Your task to perform on an android device: When is my next meeting? Image 0: 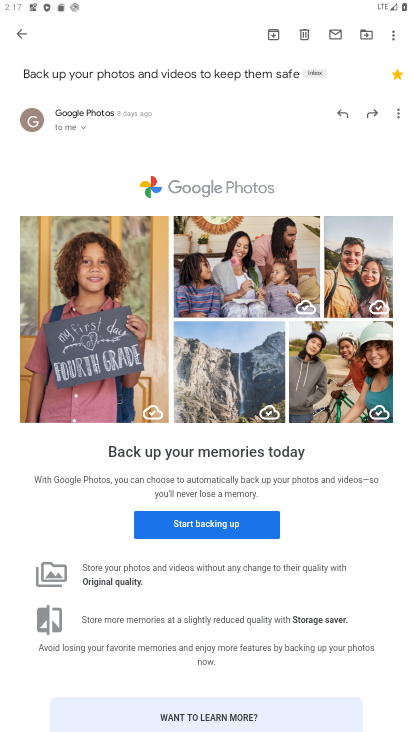
Step 0: press home button
Your task to perform on an android device: When is my next meeting? Image 1: 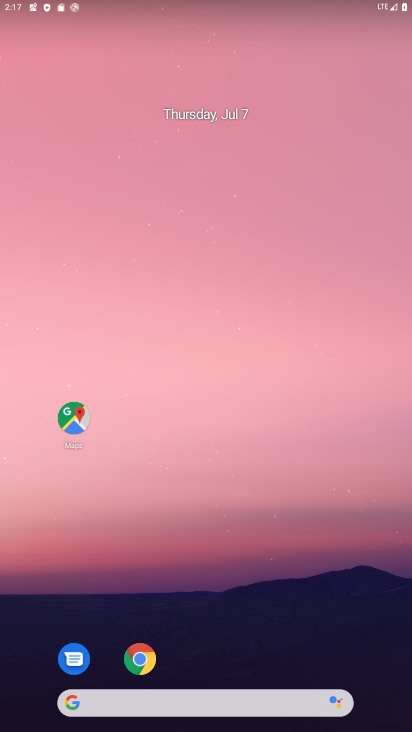
Step 1: drag from (247, 659) to (235, 120)
Your task to perform on an android device: When is my next meeting? Image 2: 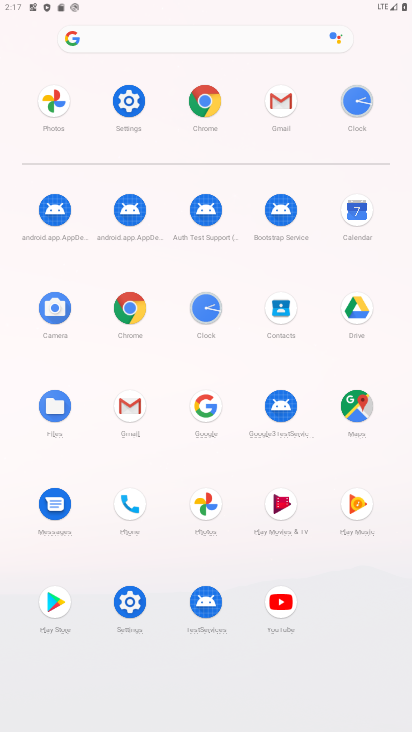
Step 2: click (355, 211)
Your task to perform on an android device: When is my next meeting? Image 3: 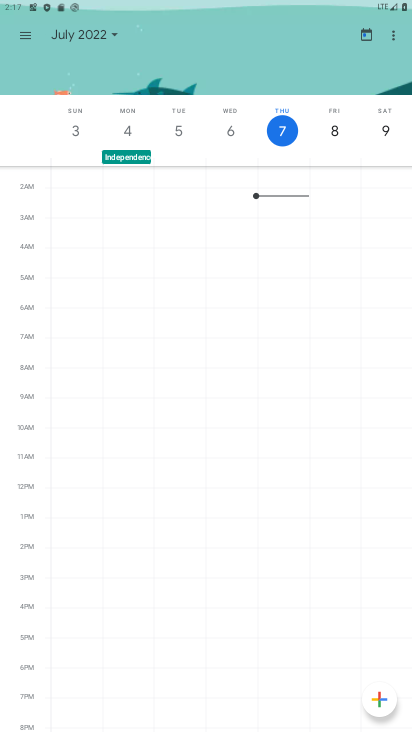
Step 3: click (365, 32)
Your task to perform on an android device: When is my next meeting? Image 4: 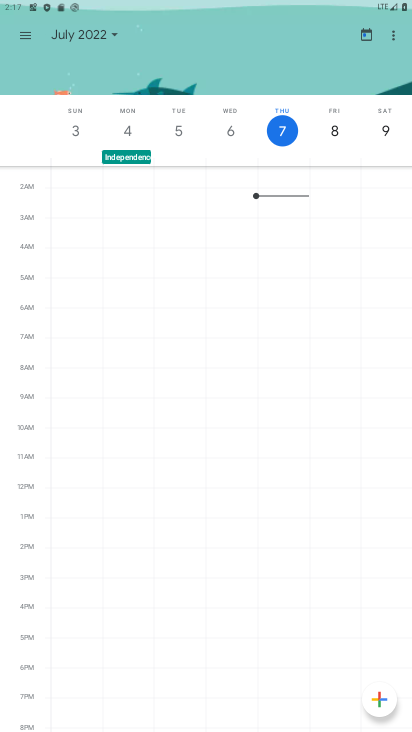
Step 4: click (115, 38)
Your task to perform on an android device: When is my next meeting? Image 5: 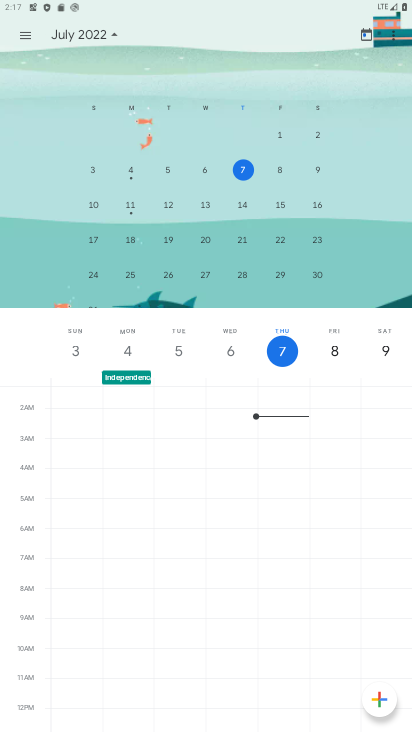
Step 5: click (133, 203)
Your task to perform on an android device: When is my next meeting? Image 6: 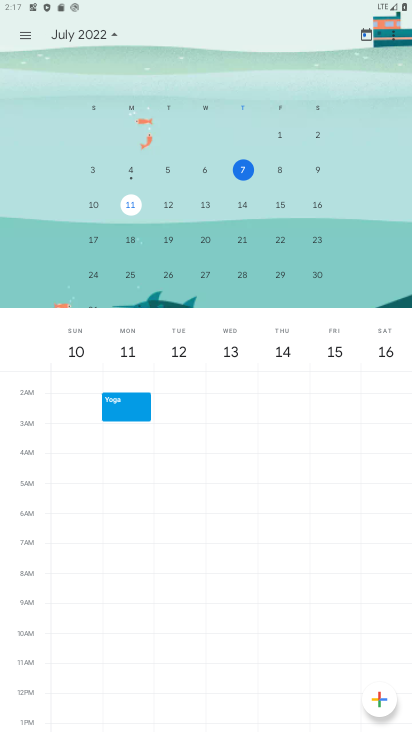
Step 6: click (18, 39)
Your task to perform on an android device: When is my next meeting? Image 7: 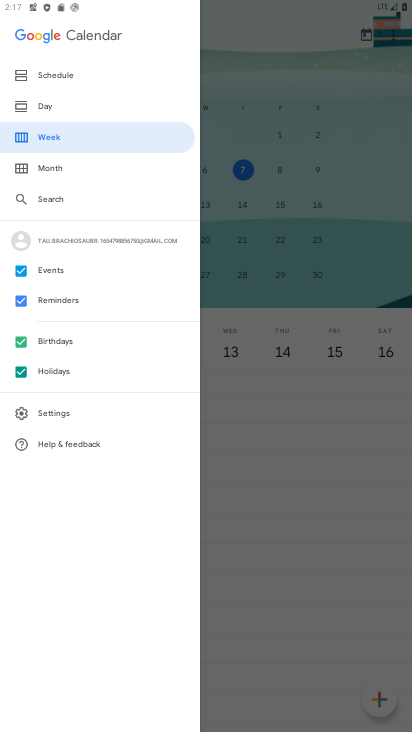
Step 7: click (82, 139)
Your task to perform on an android device: When is my next meeting? Image 8: 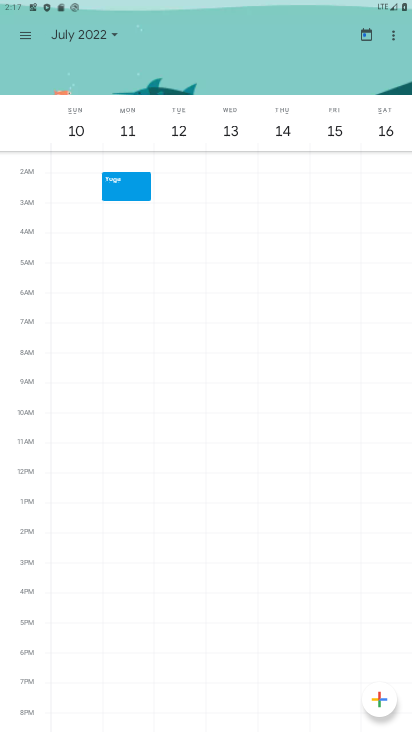
Step 8: task complete